Your task to perform on an android device: Go to ESPN.com Image 0: 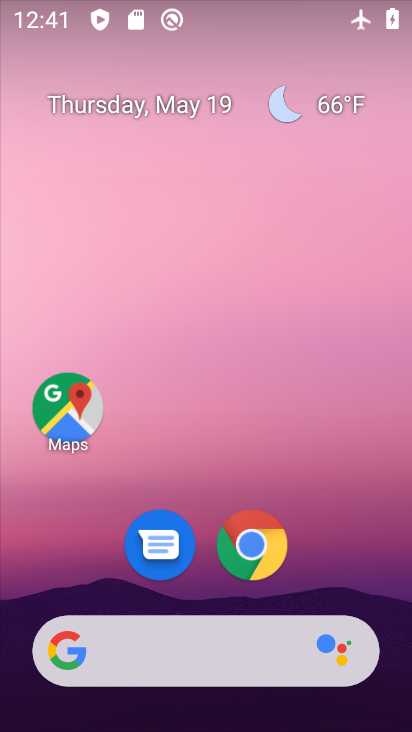
Step 0: click (211, 668)
Your task to perform on an android device: Go to ESPN.com Image 1: 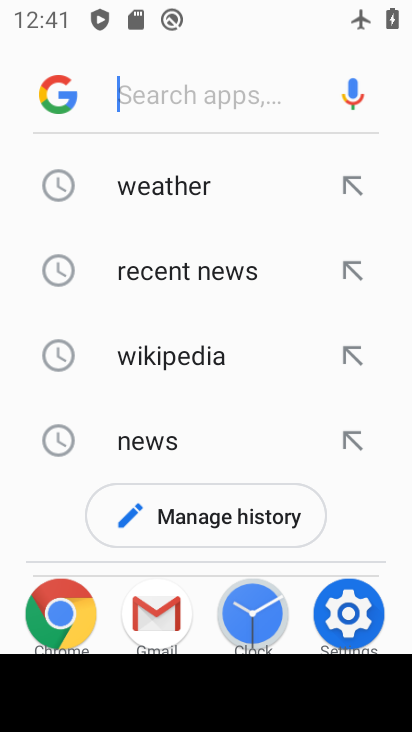
Step 1: type "espn.com"
Your task to perform on an android device: Go to ESPN.com Image 2: 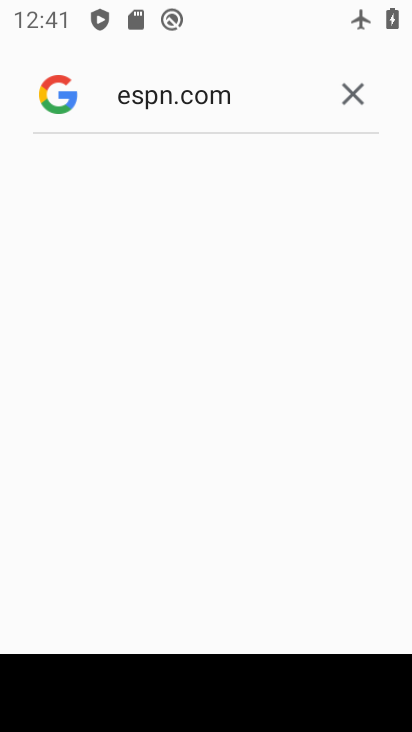
Step 2: task complete